Your task to perform on an android device: turn off smart reply in the gmail app Image 0: 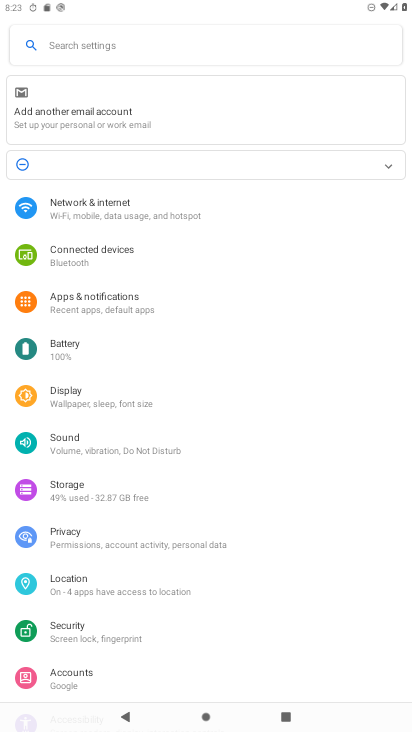
Step 0: press home button
Your task to perform on an android device: turn off smart reply in the gmail app Image 1: 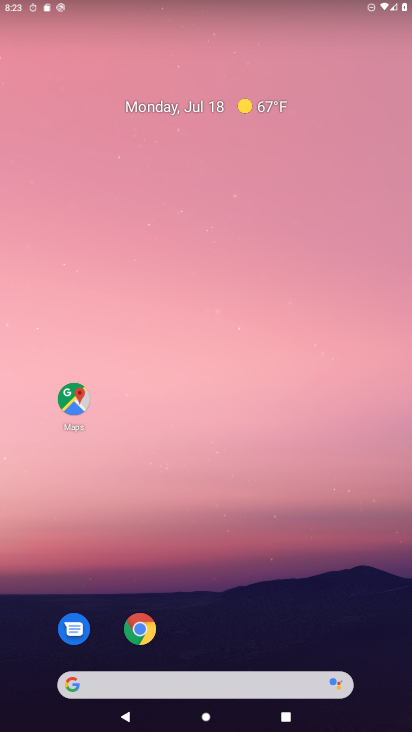
Step 1: drag from (202, 653) to (203, 4)
Your task to perform on an android device: turn off smart reply in the gmail app Image 2: 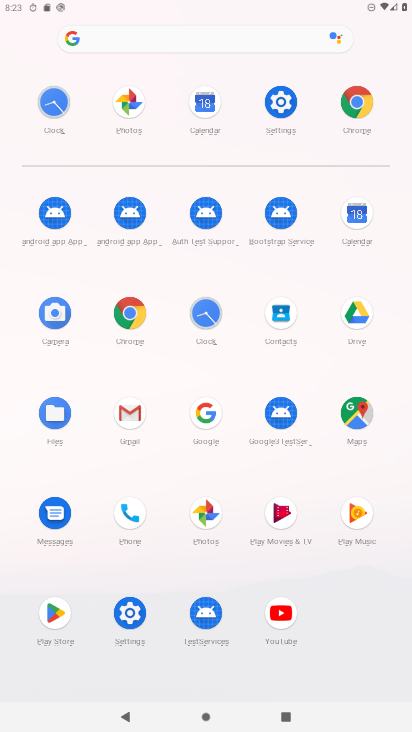
Step 2: click (140, 418)
Your task to perform on an android device: turn off smart reply in the gmail app Image 3: 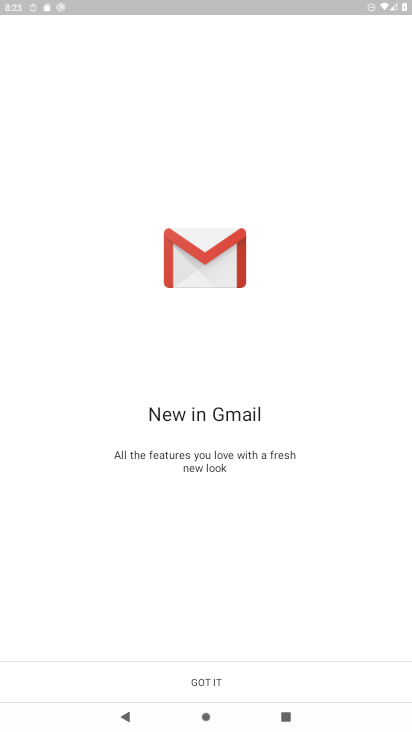
Step 3: click (211, 677)
Your task to perform on an android device: turn off smart reply in the gmail app Image 4: 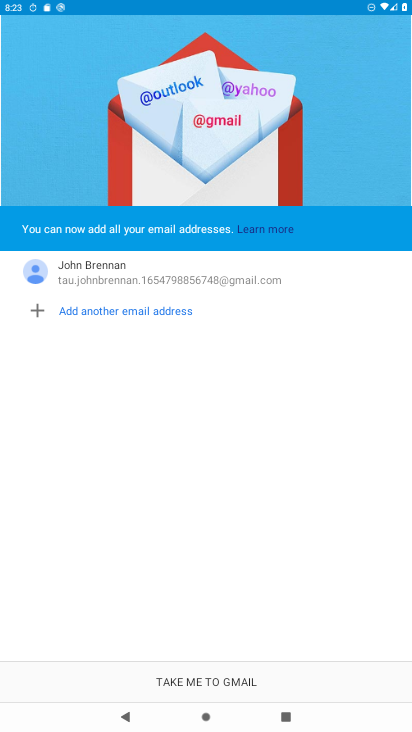
Step 4: click (197, 678)
Your task to perform on an android device: turn off smart reply in the gmail app Image 5: 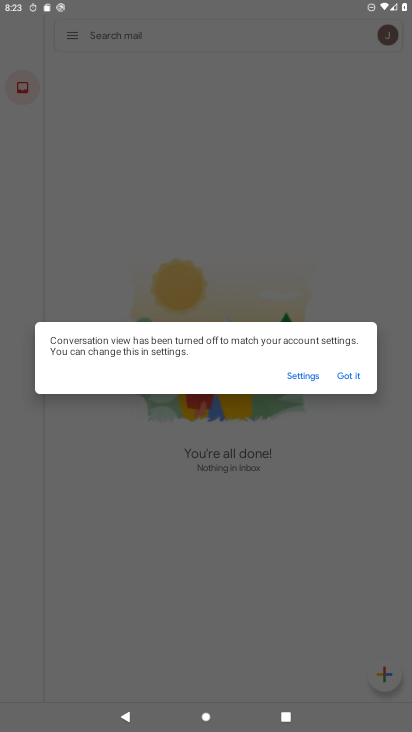
Step 5: click (360, 372)
Your task to perform on an android device: turn off smart reply in the gmail app Image 6: 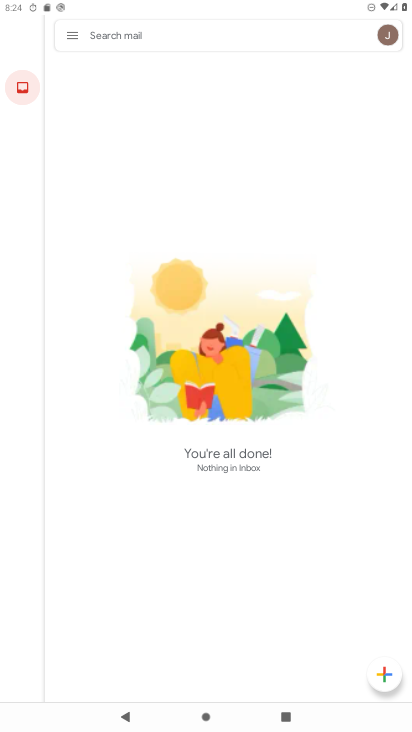
Step 6: click (71, 37)
Your task to perform on an android device: turn off smart reply in the gmail app Image 7: 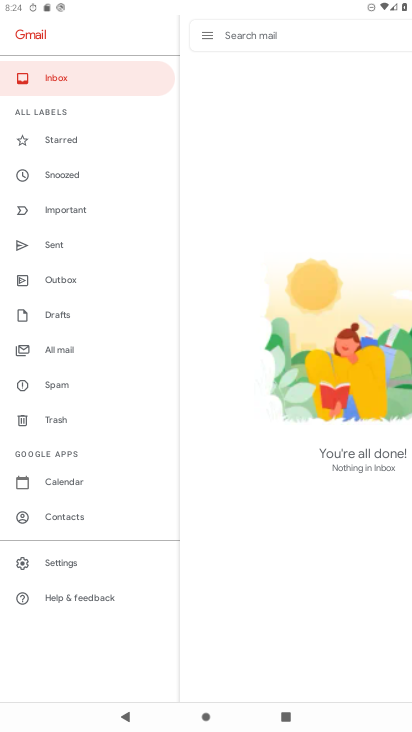
Step 7: click (60, 556)
Your task to perform on an android device: turn off smart reply in the gmail app Image 8: 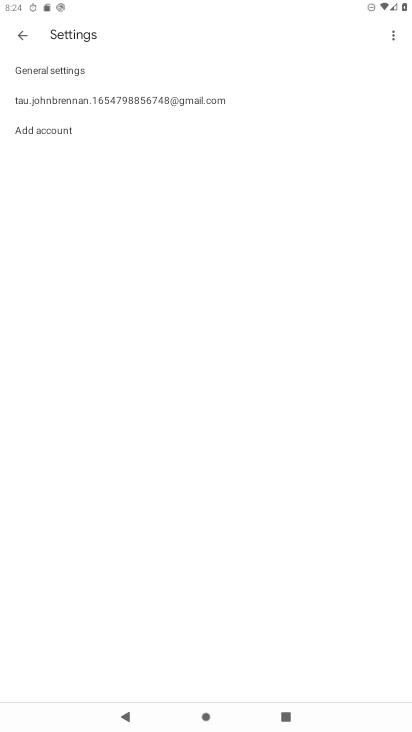
Step 8: click (41, 104)
Your task to perform on an android device: turn off smart reply in the gmail app Image 9: 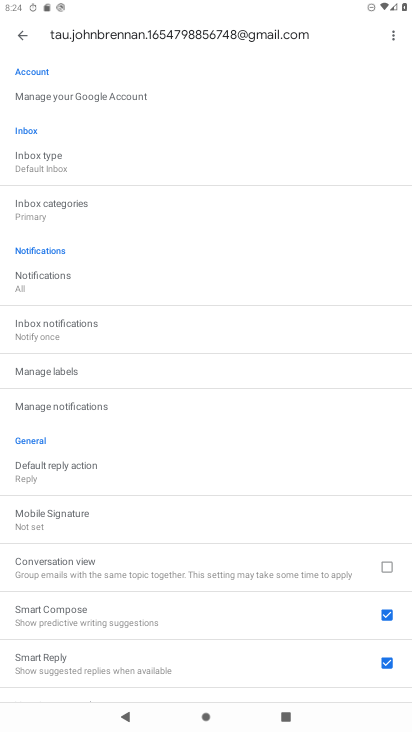
Step 9: click (384, 659)
Your task to perform on an android device: turn off smart reply in the gmail app Image 10: 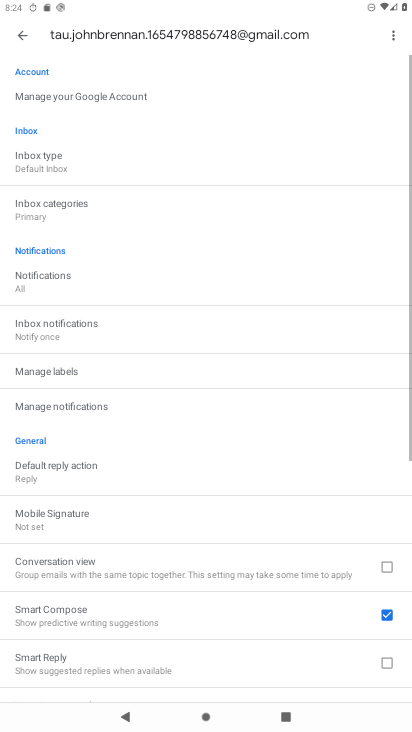
Step 10: task complete